Your task to perform on an android device: Search for Mexican restaurants on Maps Image 0: 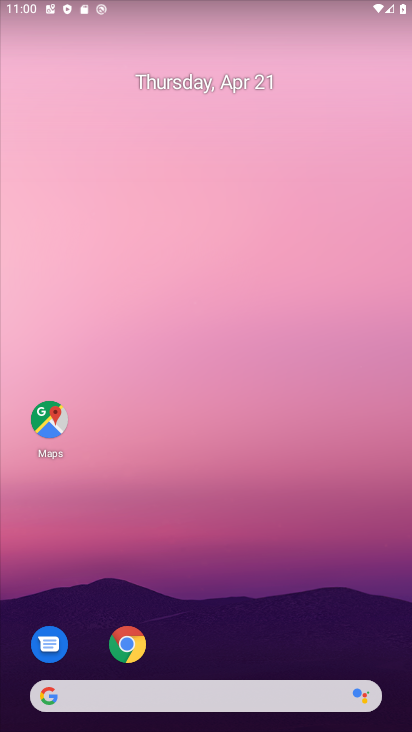
Step 0: click (47, 421)
Your task to perform on an android device: Search for Mexican restaurants on Maps Image 1: 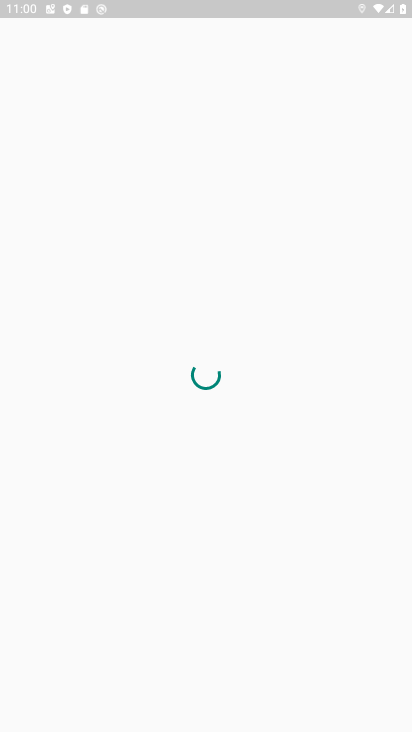
Step 1: click (352, 36)
Your task to perform on an android device: Search for Mexican restaurants on Maps Image 2: 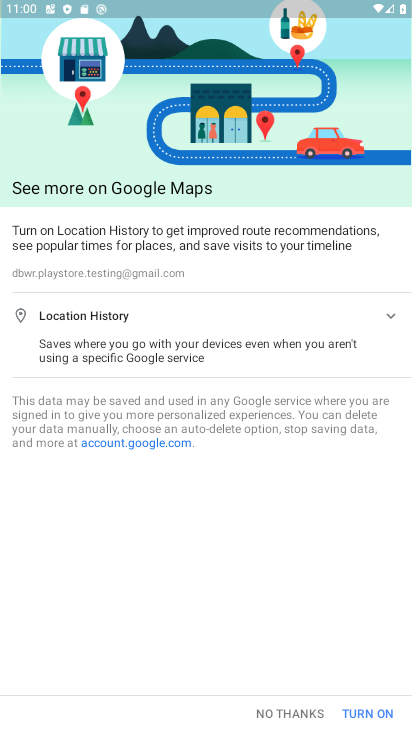
Step 2: click (282, 714)
Your task to perform on an android device: Search for Mexican restaurants on Maps Image 3: 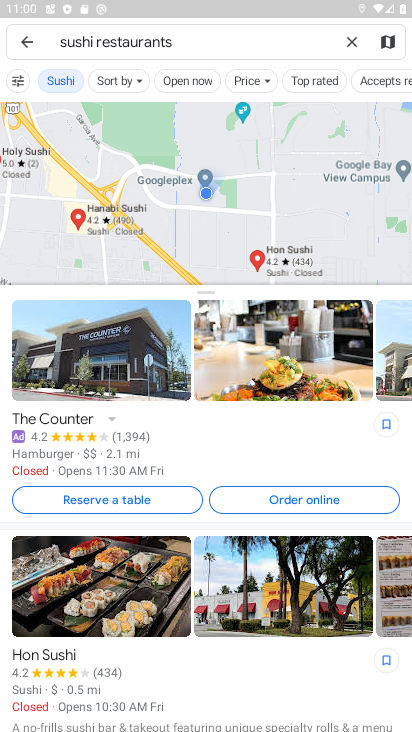
Step 3: click (351, 45)
Your task to perform on an android device: Search for Mexican restaurants on Maps Image 4: 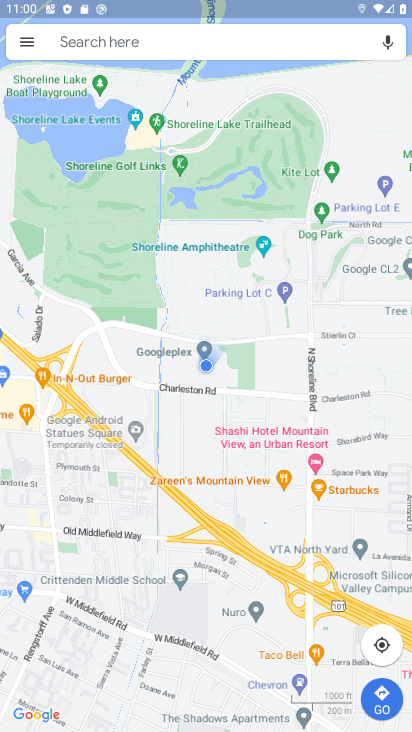
Step 4: click (148, 36)
Your task to perform on an android device: Search for Mexican restaurants on Maps Image 5: 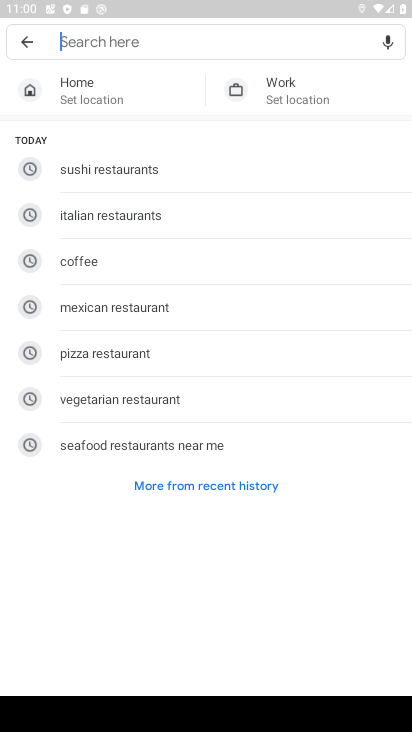
Step 5: click (144, 315)
Your task to perform on an android device: Search for Mexican restaurants on Maps Image 6: 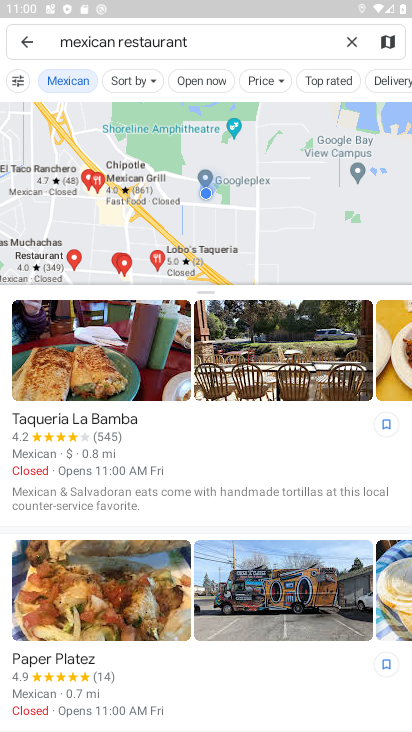
Step 6: task complete